Your task to perform on an android device: open chrome and create a bookmark for the current page Image 0: 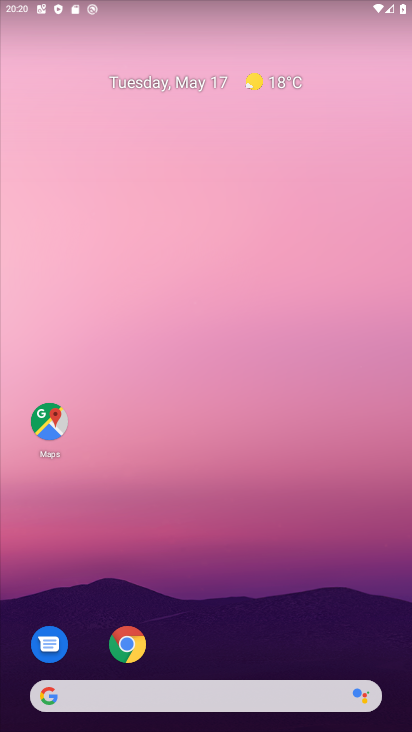
Step 0: click (130, 641)
Your task to perform on an android device: open chrome and create a bookmark for the current page Image 1: 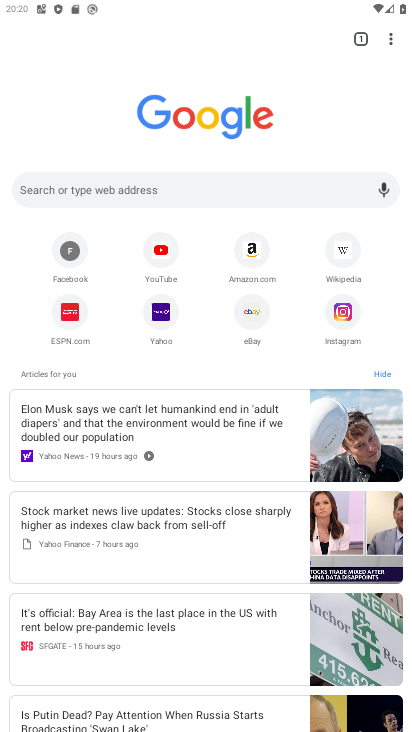
Step 1: task complete